Your task to perform on an android device: Go to CNN.com Image 0: 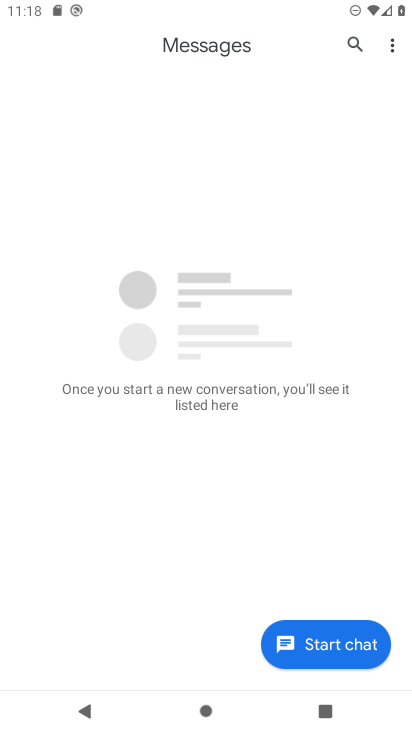
Step 0: press home button
Your task to perform on an android device: Go to CNN.com Image 1: 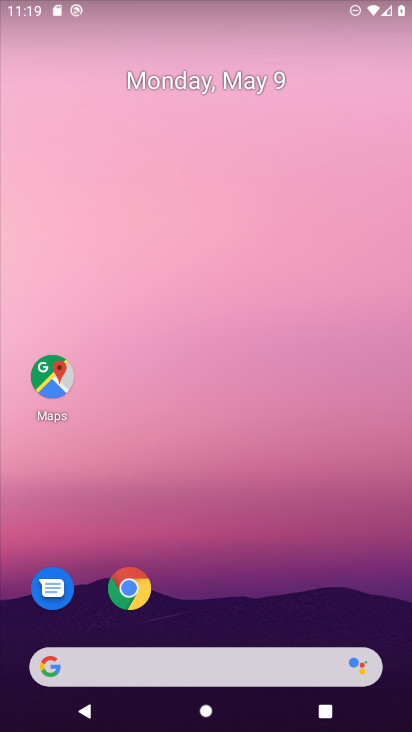
Step 1: click (129, 600)
Your task to perform on an android device: Go to CNN.com Image 2: 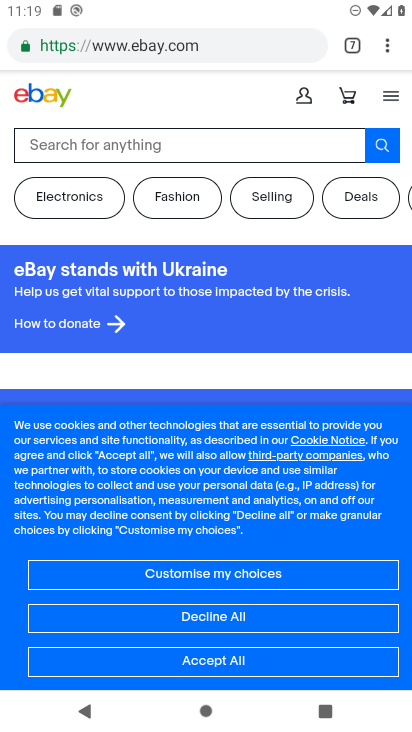
Step 2: click (262, 54)
Your task to perform on an android device: Go to CNN.com Image 3: 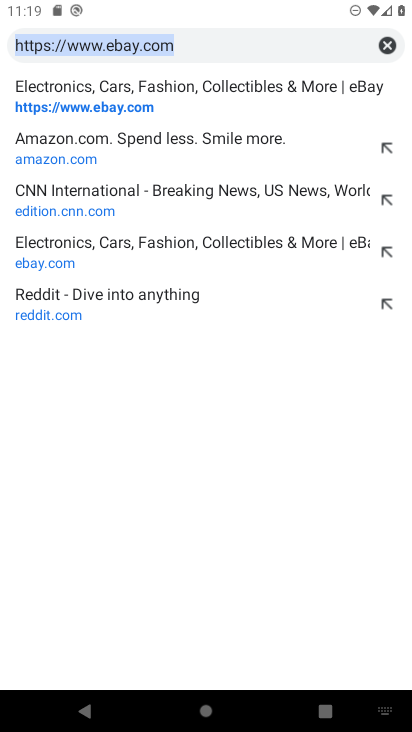
Step 3: type "cnn"
Your task to perform on an android device: Go to CNN.com Image 4: 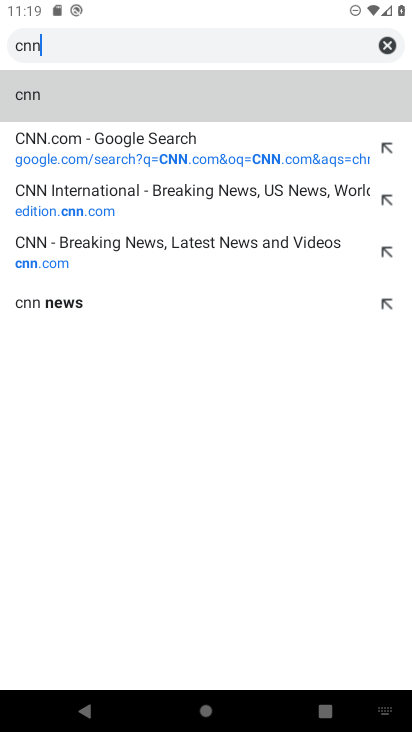
Step 4: click (216, 161)
Your task to perform on an android device: Go to CNN.com Image 5: 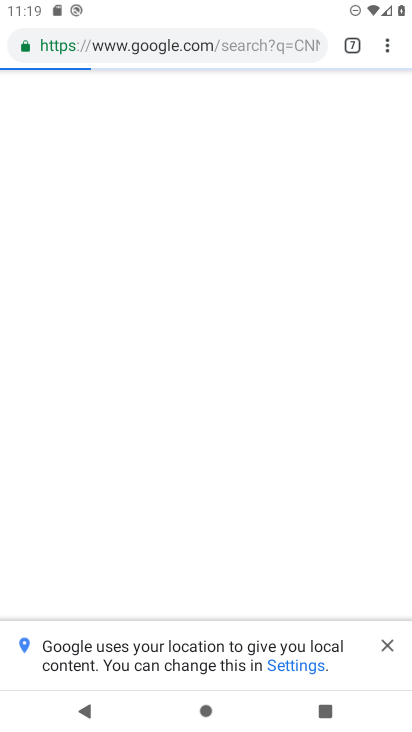
Step 5: task complete